Your task to perform on an android device: Do I have any events tomorrow? Image 0: 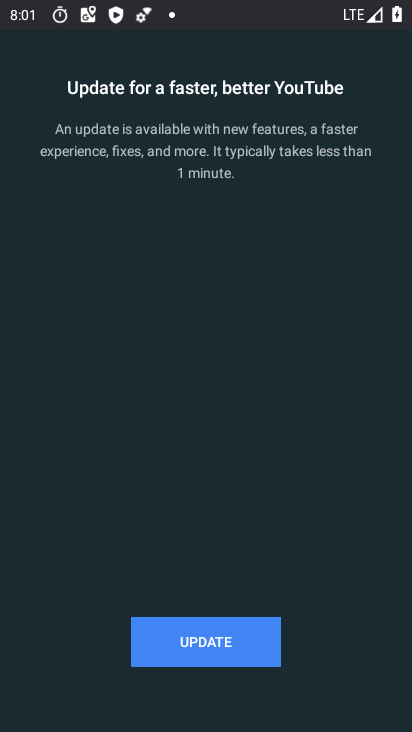
Step 0: press home button
Your task to perform on an android device: Do I have any events tomorrow? Image 1: 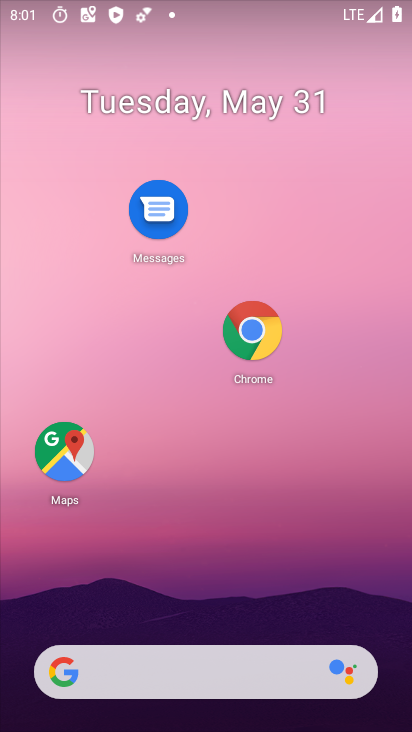
Step 1: drag from (193, 608) to (166, 225)
Your task to perform on an android device: Do I have any events tomorrow? Image 2: 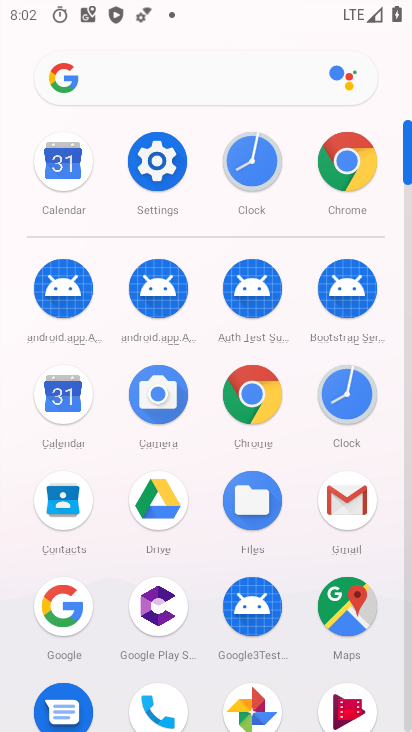
Step 2: click (66, 402)
Your task to perform on an android device: Do I have any events tomorrow? Image 3: 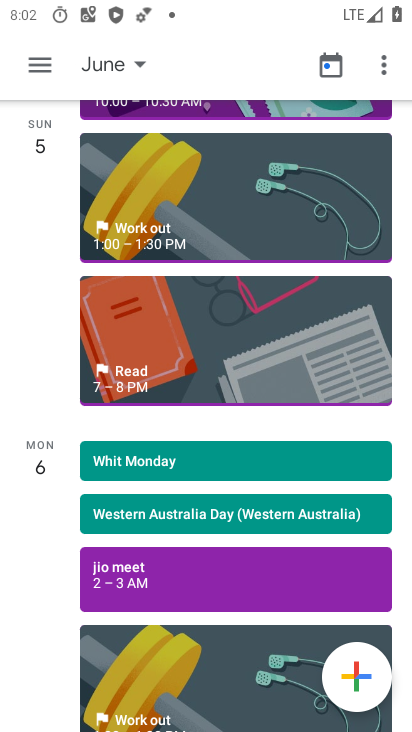
Step 3: task complete